Your task to perform on an android device: Play the last video I watched on Youtube Image 0: 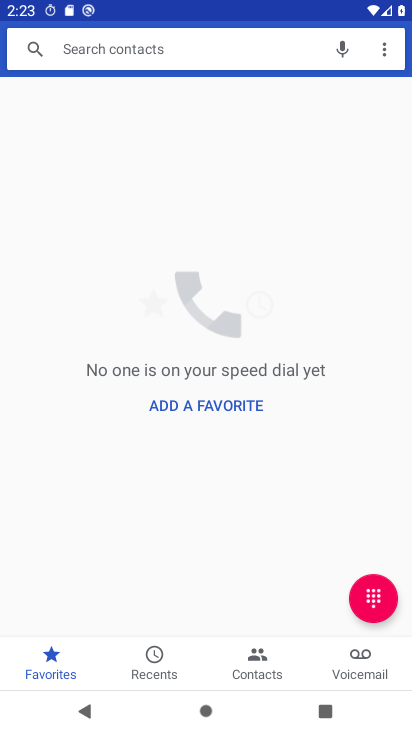
Step 0: press home button
Your task to perform on an android device: Play the last video I watched on Youtube Image 1: 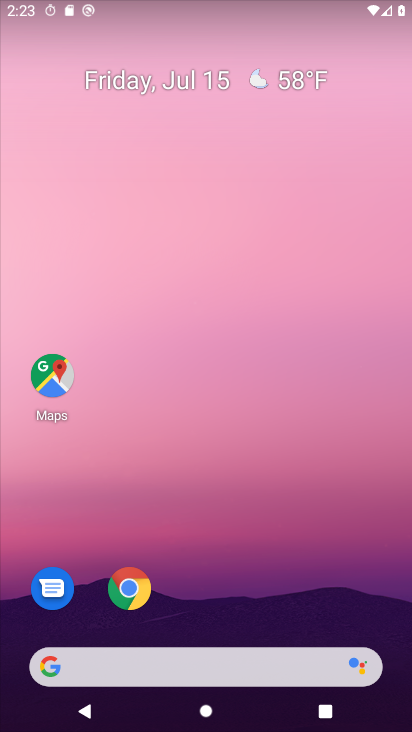
Step 1: drag from (274, 622) to (270, 143)
Your task to perform on an android device: Play the last video I watched on Youtube Image 2: 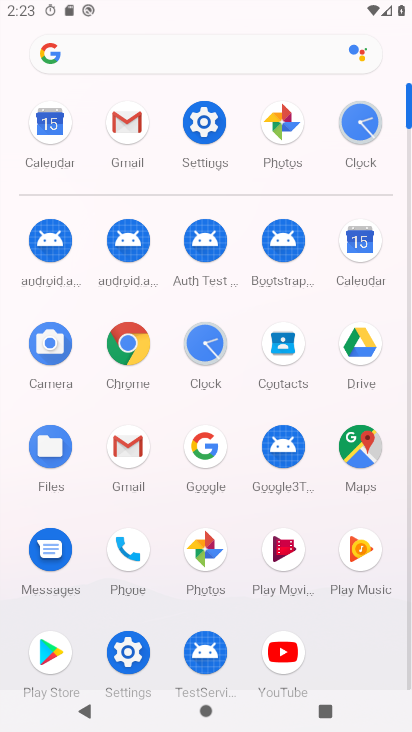
Step 2: click (274, 665)
Your task to perform on an android device: Play the last video I watched on Youtube Image 3: 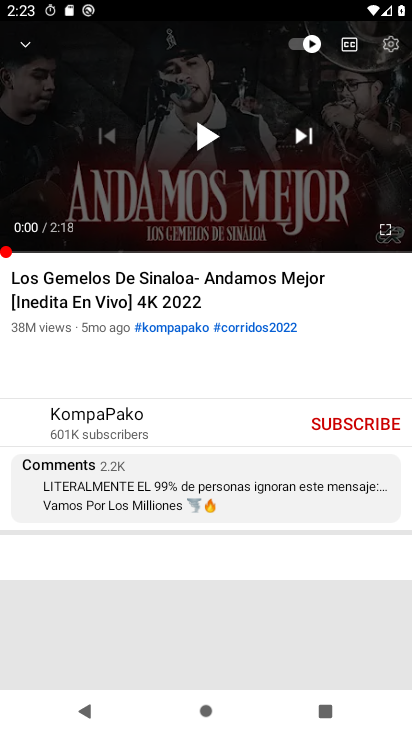
Step 3: click (19, 48)
Your task to perform on an android device: Play the last video I watched on Youtube Image 4: 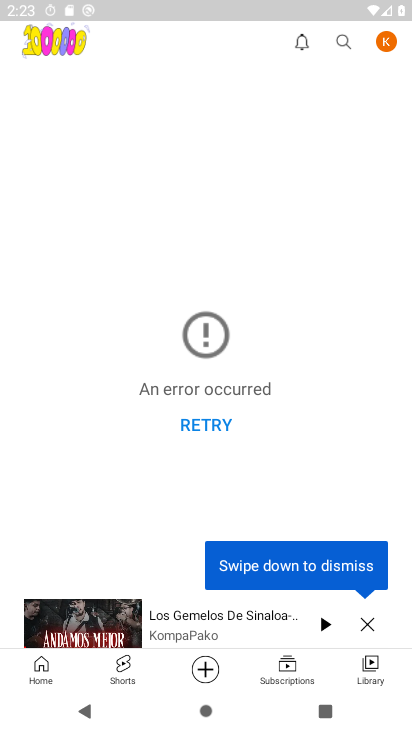
Step 4: click (367, 625)
Your task to perform on an android device: Play the last video I watched on Youtube Image 5: 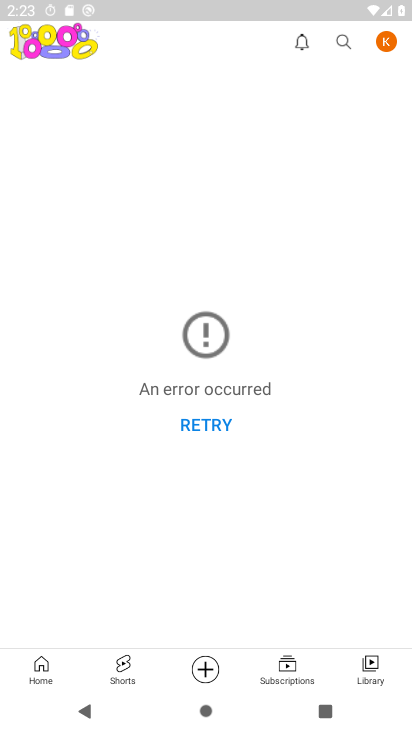
Step 5: click (367, 664)
Your task to perform on an android device: Play the last video I watched on Youtube Image 6: 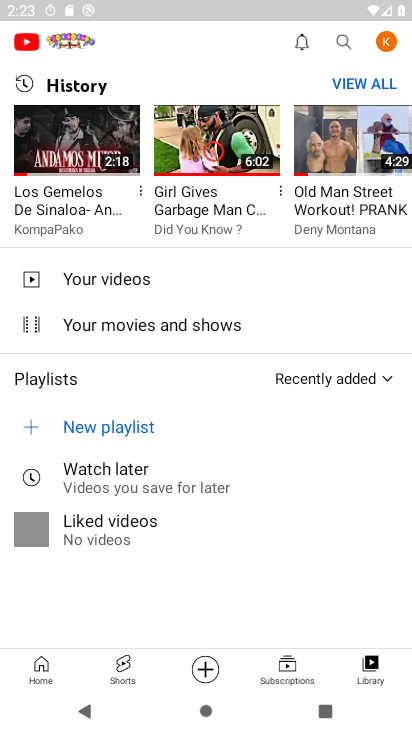
Step 6: click (86, 167)
Your task to perform on an android device: Play the last video I watched on Youtube Image 7: 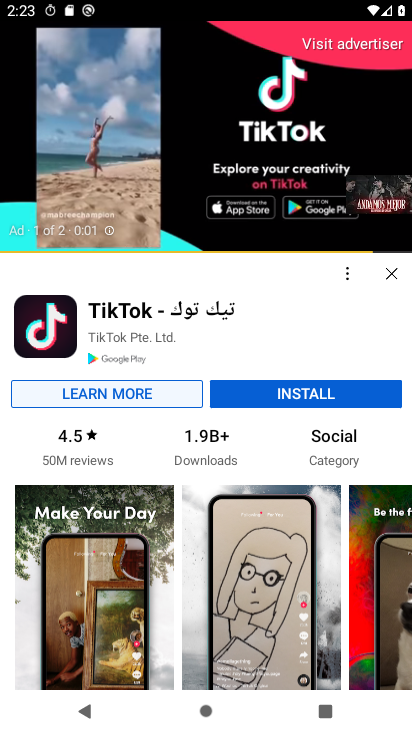
Step 7: task complete